Your task to perform on an android device: Search for seafood restaurants on Google Maps Image 0: 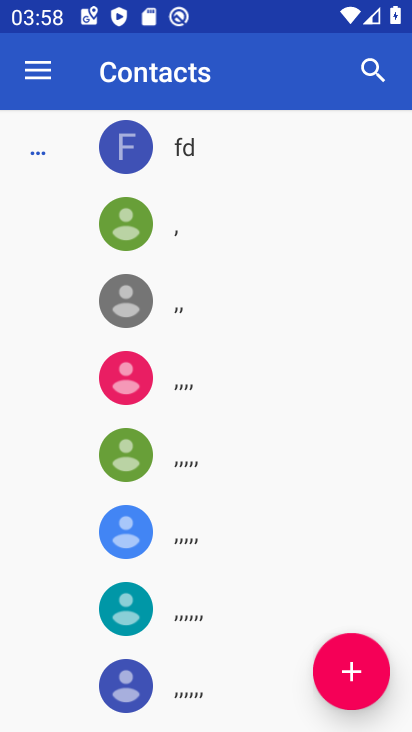
Step 0: press home button
Your task to perform on an android device: Search for seafood restaurants on Google Maps Image 1: 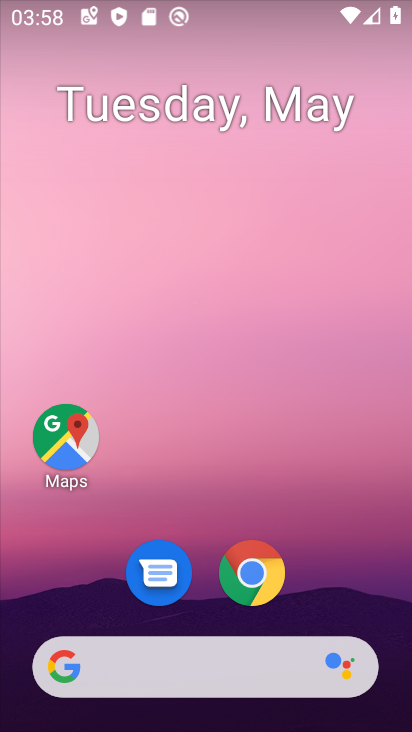
Step 1: click (62, 447)
Your task to perform on an android device: Search for seafood restaurants on Google Maps Image 2: 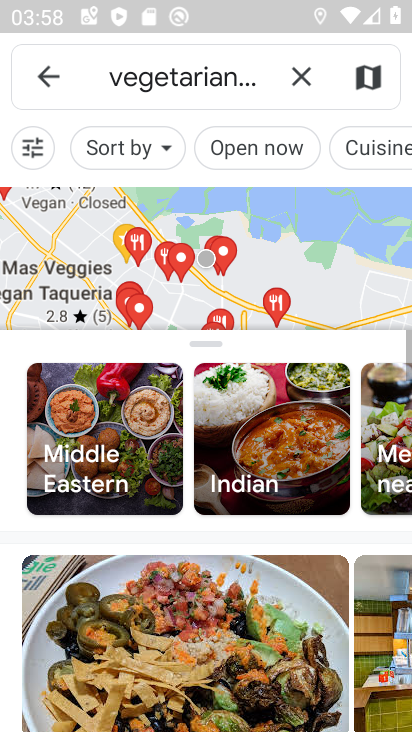
Step 2: click (299, 75)
Your task to perform on an android device: Search for seafood restaurants on Google Maps Image 3: 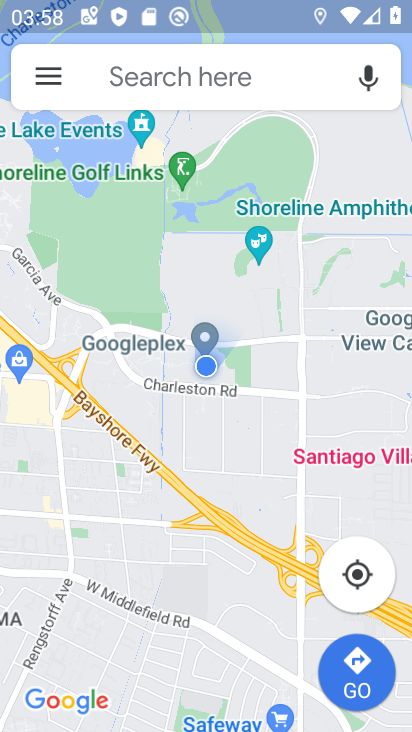
Step 3: click (147, 82)
Your task to perform on an android device: Search for seafood restaurants on Google Maps Image 4: 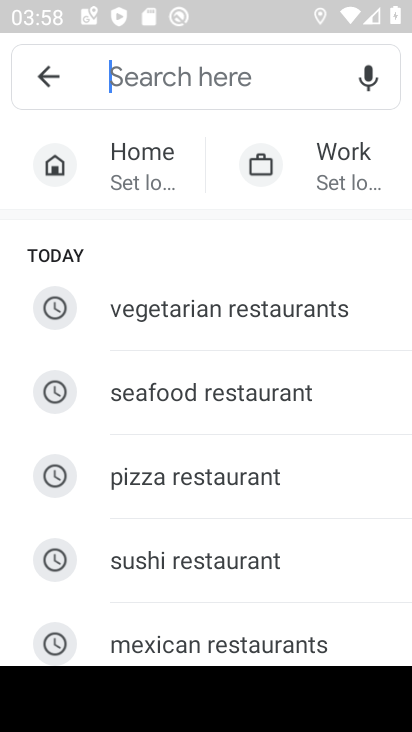
Step 4: click (153, 405)
Your task to perform on an android device: Search for seafood restaurants on Google Maps Image 5: 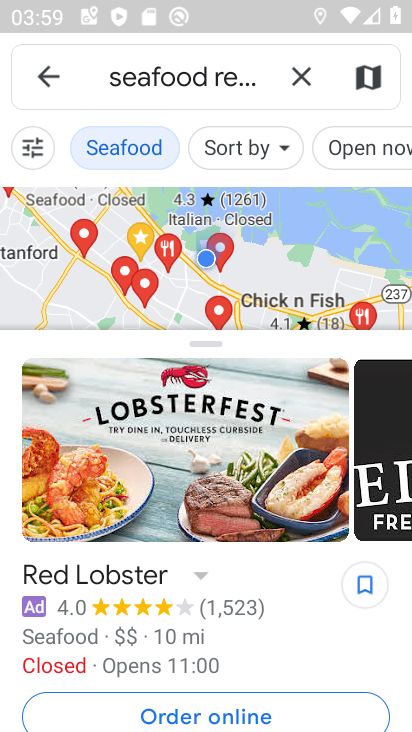
Step 5: task complete